Your task to perform on an android device: Open location settings Image 0: 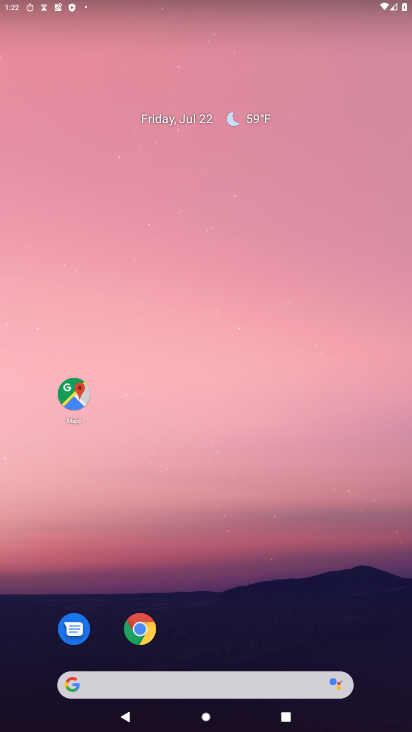
Step 0: drag from (169, 589) to (202, 124)
Your task to perform on an android device: Open location settings Image 1: 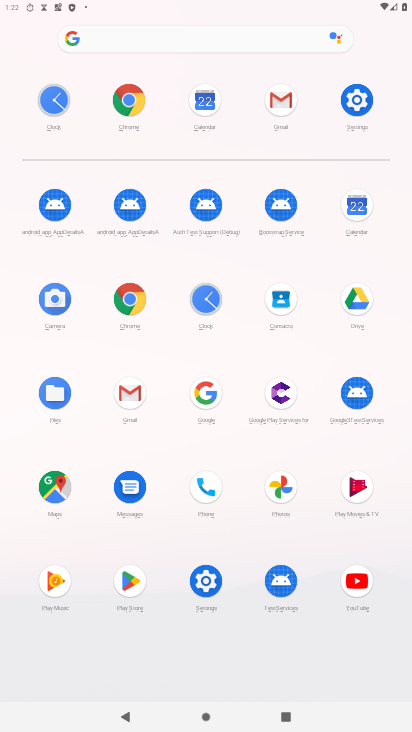
Step 1: click (356, 101)
Your task to perform on an android device: Open location settings Image 2: 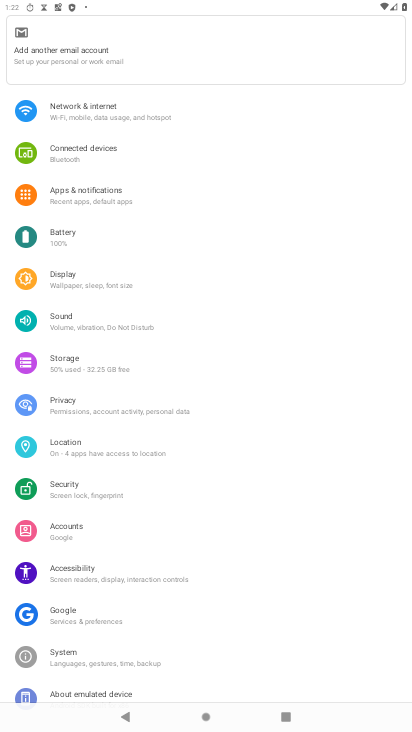
Step 2: click (94, 444)
Your task to perform on an android device: Open location settings Image 3: 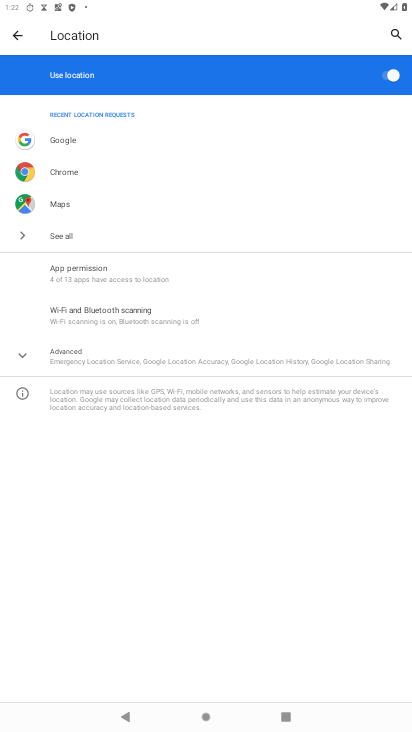
Step 3: task complete